Your task to perform on an android device: Open wifi settings Image 0: 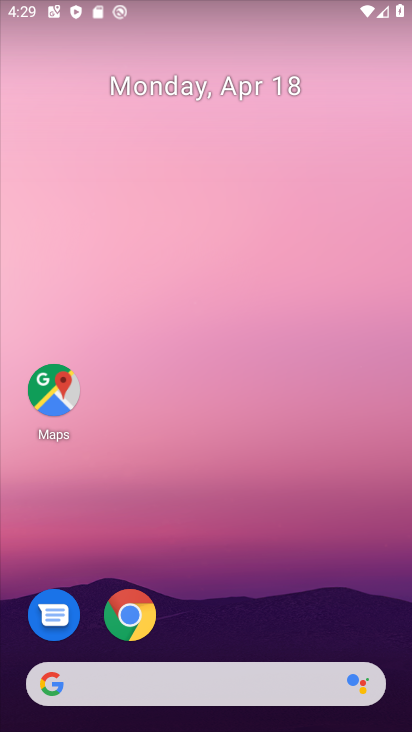
Step 0: drag from (270, 6) to (252, 587)
Your task to perform on an android device: Open wifi settings Image 1: 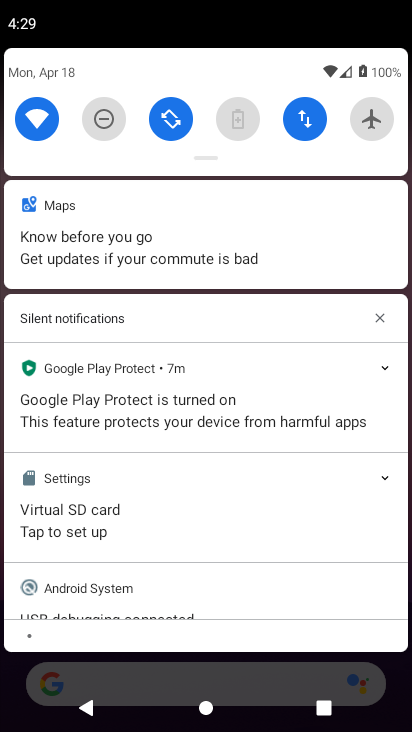
Step 1: click (45, 118)
Your task to perform on an android device: Open wifi settings Image 2: 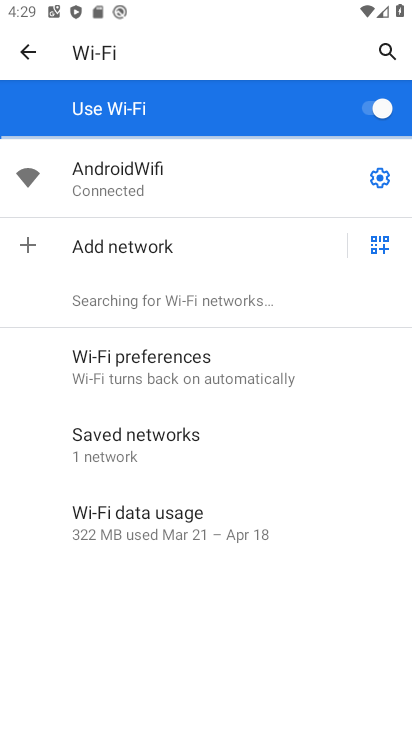
Step 2: task complete